Your task to perform on an android device: clear all cookies in the chrome app Image 0: 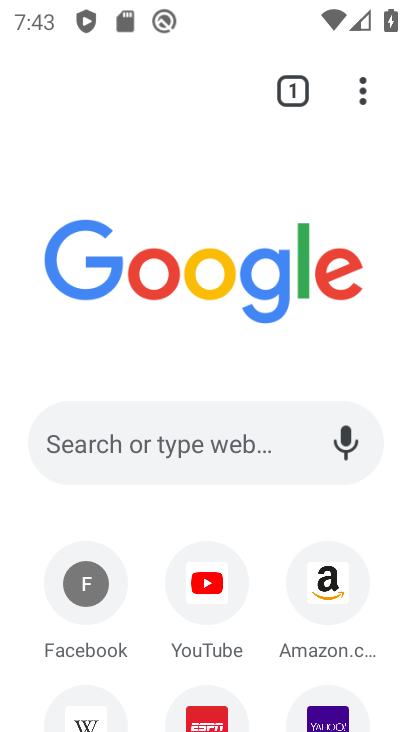
Step 0: click (378, 81)
Your task to perform on an android device: clear all cookies in the chrome app Image 1: 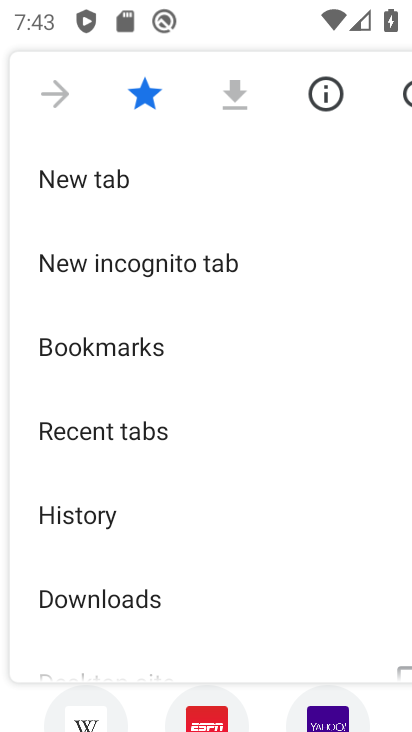
Step 1: click (84, 513)
Your task to perform on an android device: clear all cookies in the chrome app Image 2: 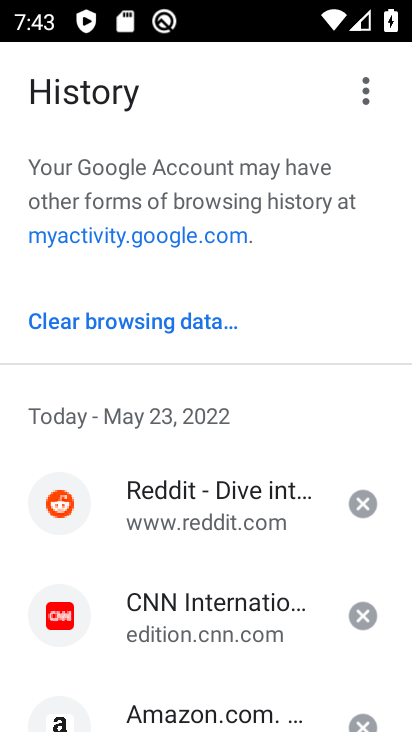
Step 2: click (131, 324)
Your task to perform on an android device: clear all cookies in the chrome app Image 3: 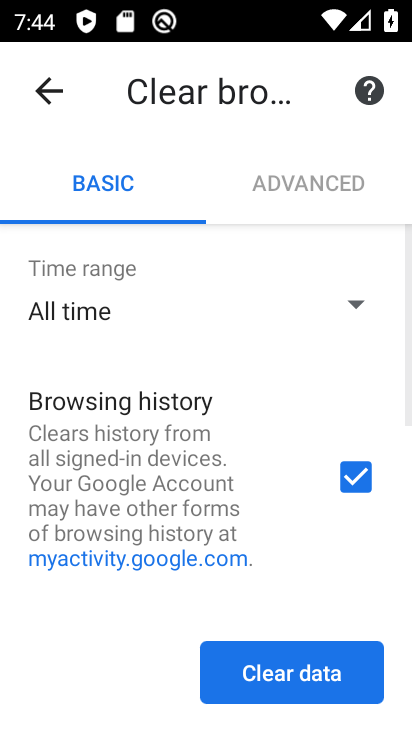
Step 3: click (353, 484)
Your task to perform on an android device: clear all cookies in the chrome app Image 4: 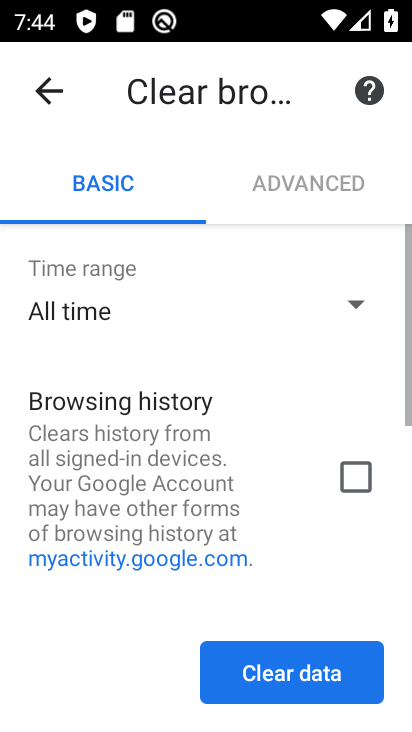
Step 4: drag from (71, 513) to (156, 190)
Your task to perform on an android device: clear all cookies in the chrome app Image 5: 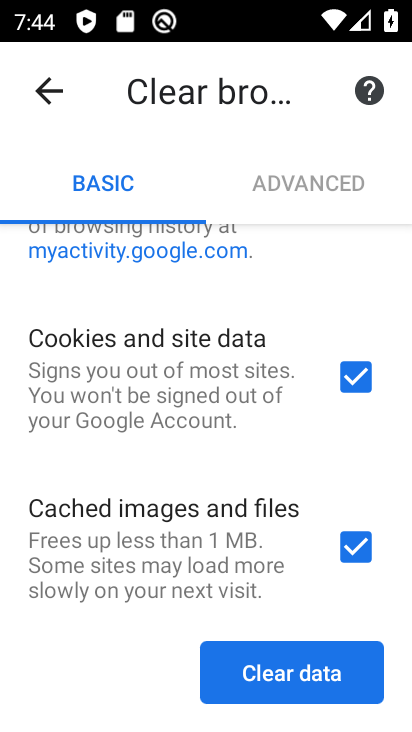
Step 5: click (276, 671)
Your task to perform on an android device: clear all cookies in the chrome app Image 6: 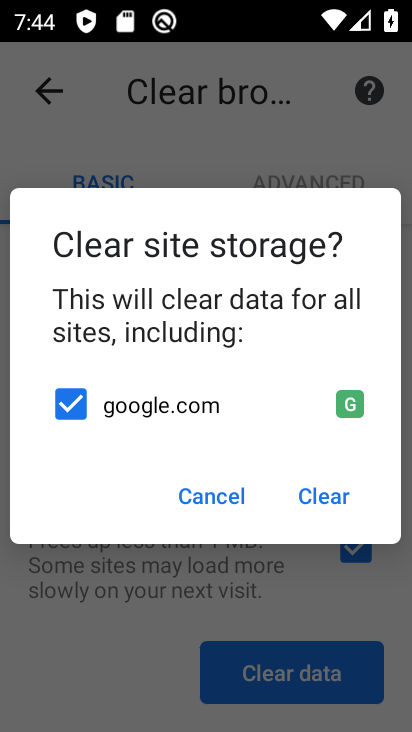
Step 6: click (337, 507)
Your task to perform on an android device: clear all cookies in the chrome app Image 7: 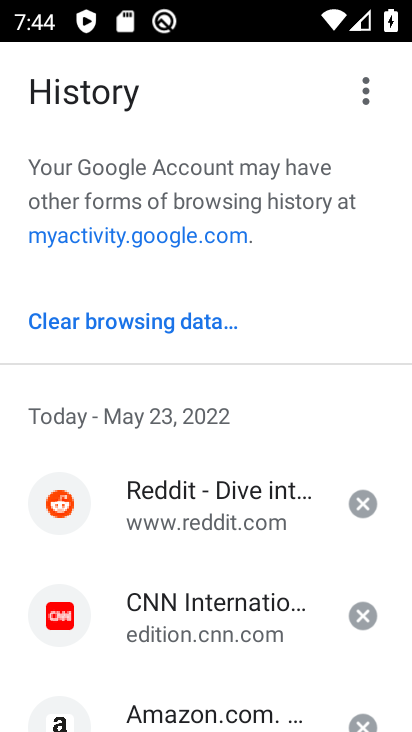
Step 7: click (121, 324)
Your task to perform on an android device: clear all cookies in the chrome app Image 8: 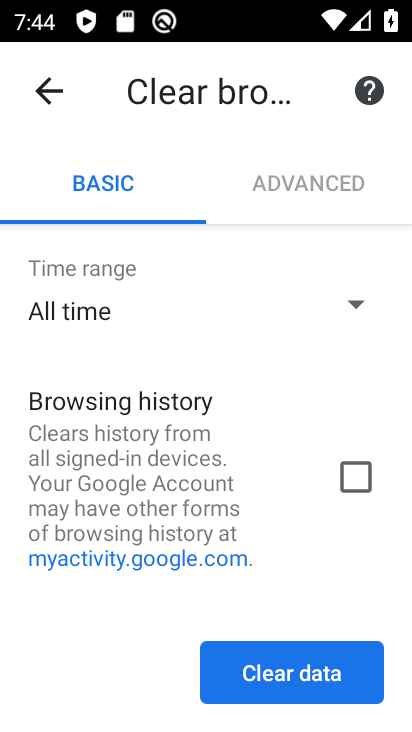
Step 8: task complete